Your task to perform on an android device: change the clock display to analog Image 0: 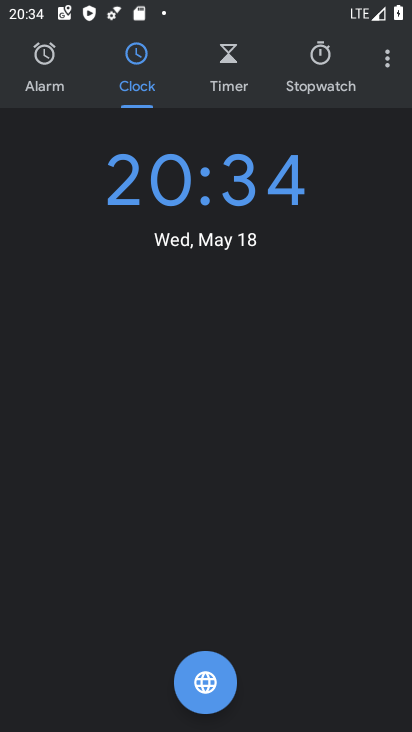
Step 0: click (380, 53)
Your task to perform on an android device: change the clock display to analog Image 1: 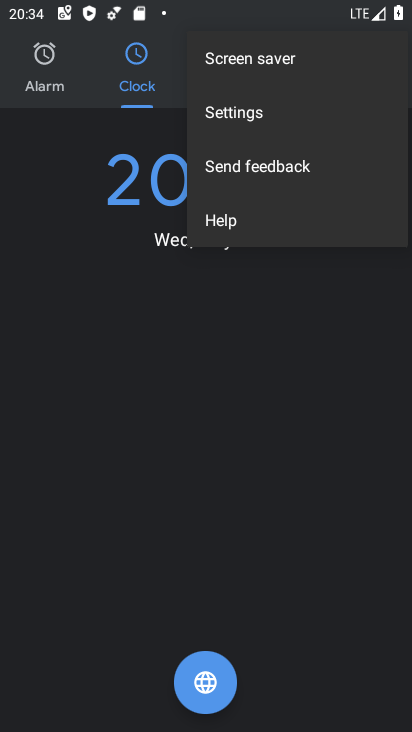
Step 1: click (233, 106)
Your task to perform on an android device: change the clock display to analog Image 2: 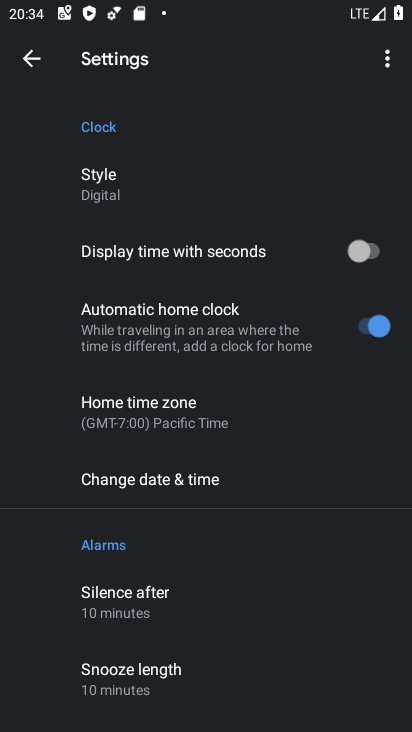
Step 2: click (124, 183)
Your task to perform on an android device: change the clock display to analog Image 3: 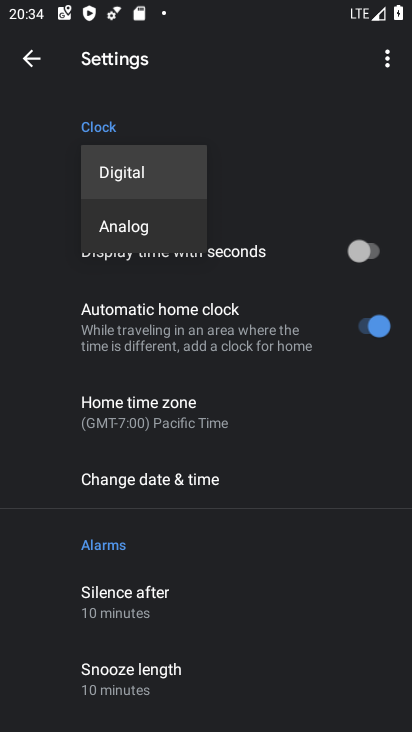
Step 3: click (115, 226)
Your task to perform on an android device: change the clock display to analog Image 4: 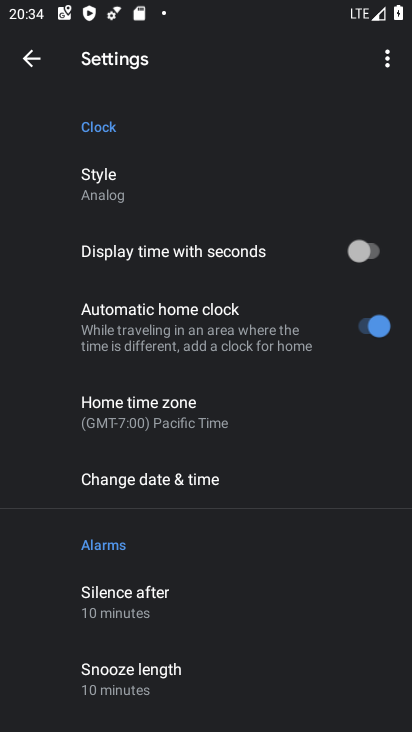
Step 4: task complete